Your task to perform on an android device: open app "AliExpress" (install if not already installed) and enter user name: "orangutan@inbox.com" and password: "Lyons" Image 0: 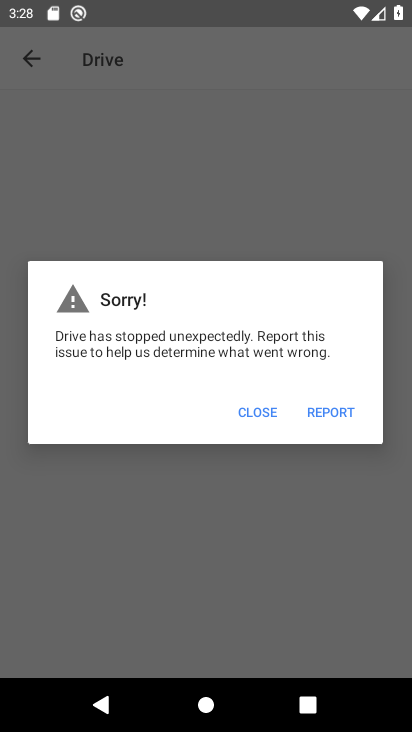
Step 0: press home button
Your task to perform on an android device: open app "AliExpress" (install if not already installed) and enter user name: "orangutan@inbox.com" and password: "Lyons" Image 1: 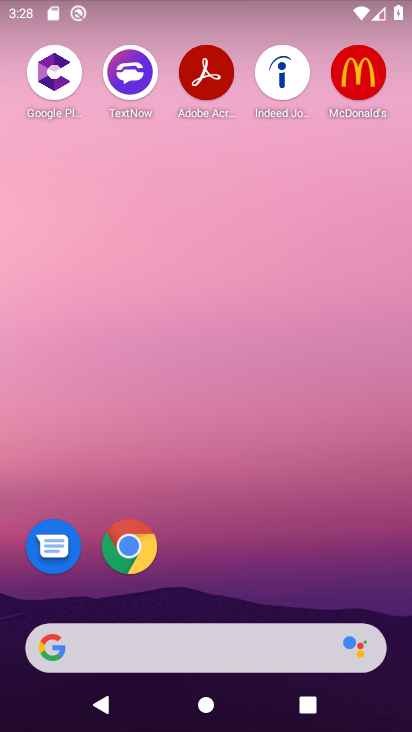
Step 1: drag from (403, 647) to (357, 272)
Your task to perform on an android device: open app "AliExpress" (install if not already installed) and enter user name: "orangutan@inbox.com" and password: "Lyons" Image 2: 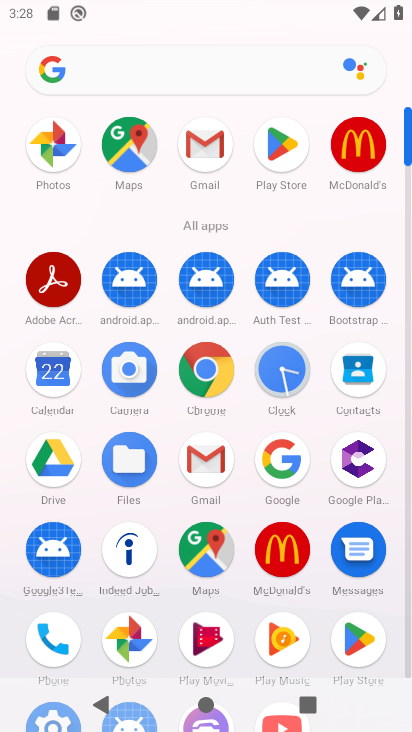
Step 2: click (358, 638)
Your task to perform on an android device: open app "AliExpress" (install if not already installed) and enter user name: "orangutan@inbox.com" and password: "Lyons" Image 3: 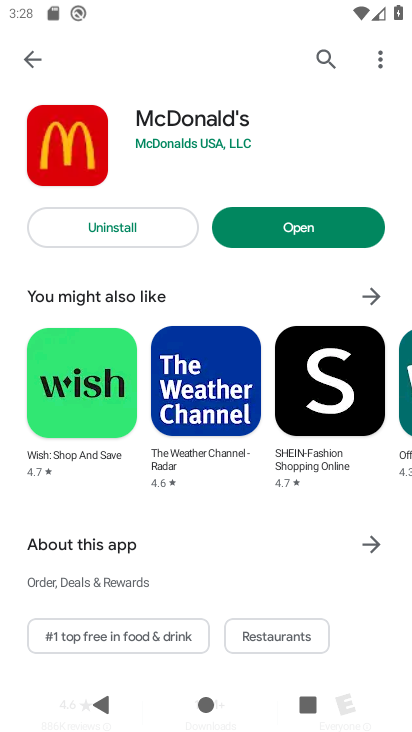
Step 3: click (318, 56)
Your task to perform on an android device: open app "AliExpress" (install if not already installed) and enter user name: "orangutan@inbox.com" and password: "Lyons" Image 4: 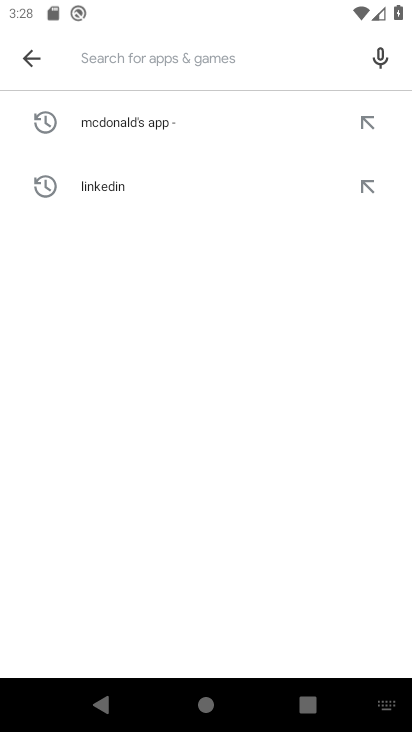
Step 4: type "AliExpress"
Your task to perform on an android device: open app "AliExpress" (install if not already installed) and enter user name: "orangutan@inbox.com" and password: "Lyons" Image 5: 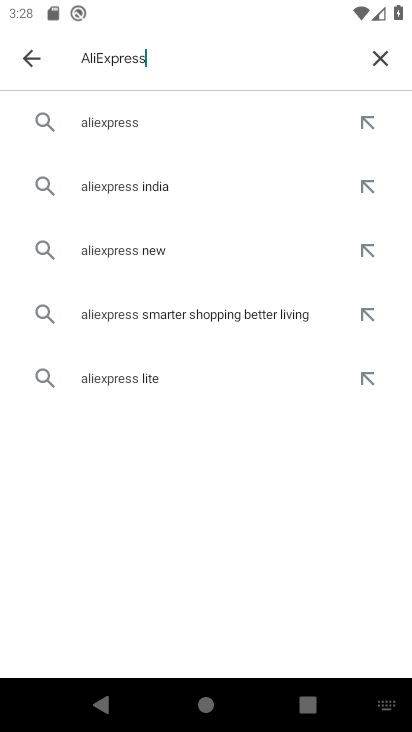
Step 5: click (110, 124)
Your task to perform on an android device: open app "AliExpress" (install if not already installed) and enter user name: "orangutan@inbox.com" and password: "Lyons" Image 6: 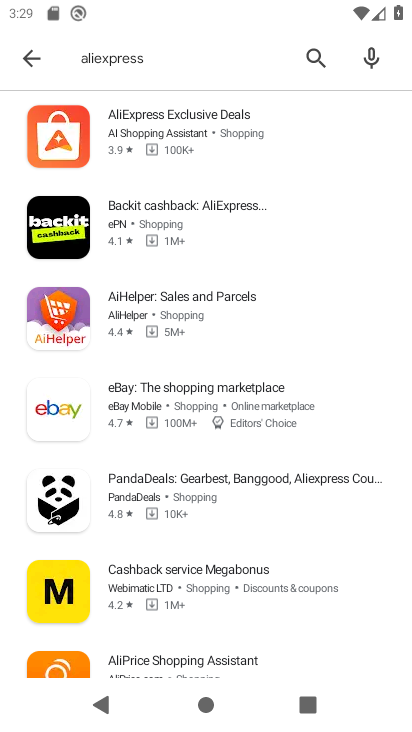
Step 6: click (132, 125)
Your task to perform on an android device: open app "AliExpress" (install if not already installed) and enter user name: "orangutan@inbox.com" and password: "Lyons" Image 7: 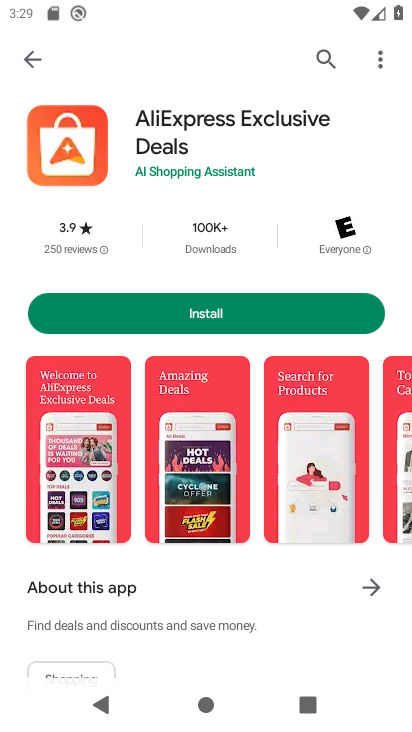
Step 7: click (202, 315)
Your task to perform on an android device: open app "AliExpress" (install if not already installed) and enter user name: "orangutan@inbox.com" and password: "Lyons" Image 8: 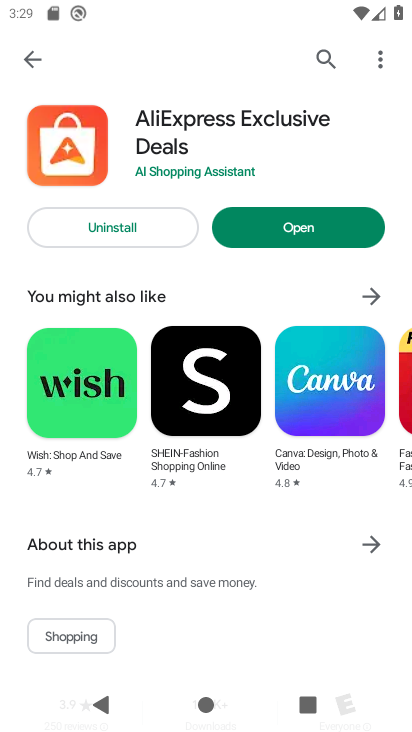
Step 8: click (291, 225)
Your task to perform on an android device: open app "AliExpress" (install if not already installed) and enter user name: "orangutan@inbox.com" and password: "Lyons" Image 9: 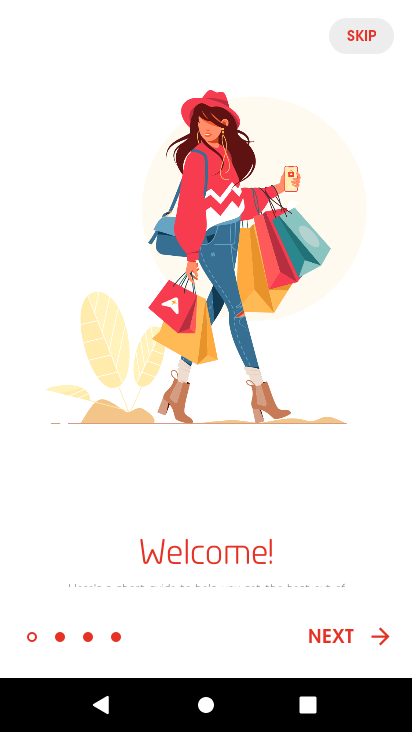
Step 9: click (357, 37)
Your task to perform on an android device: open app "AliExpress" (install if not already installed) and enter user name: "orangutan@inbox.com" and password: "Lyons" Image 10: 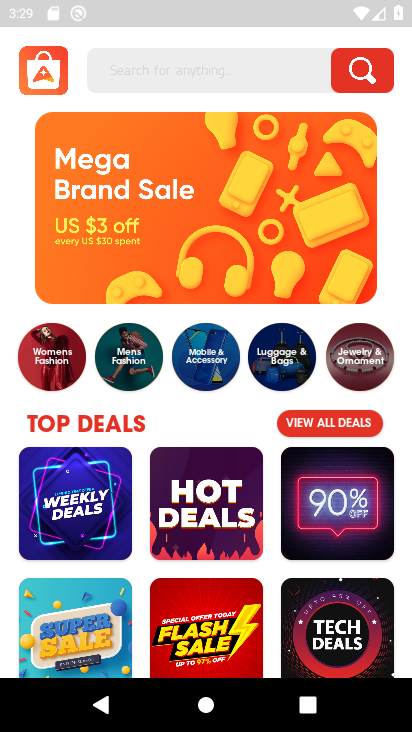
Step 10: click (41, 76)
Your task to perform on an android device: open app "AliExpress" (install if not already installed) and enter user name: "orangutan@inbox.com" and password: "Lyons" Image 11: 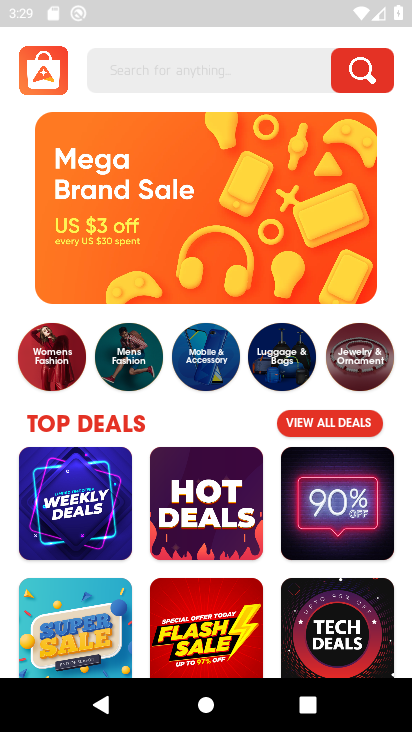
Step 11: task complete